Your task to perform on an android device: open chrome and create a bookmark for the current page Image 0: 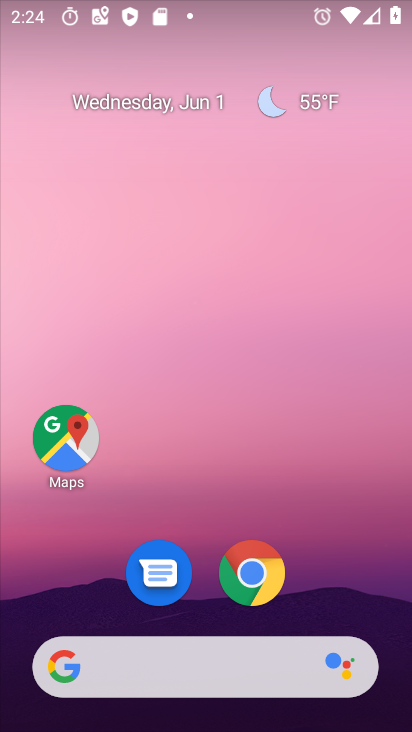
Step 0: drag from (375, 530) to (367, 6)
Your task to perform on an android device: open chrome and create a bookmark for the current page Image 1: 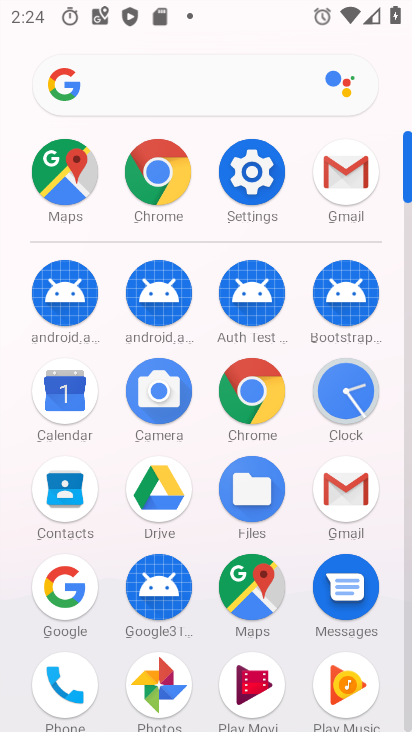
Step 1: click (139, 161)
Your task to perform on an android device: open chrome and create a bookmark for the current page Image 2: 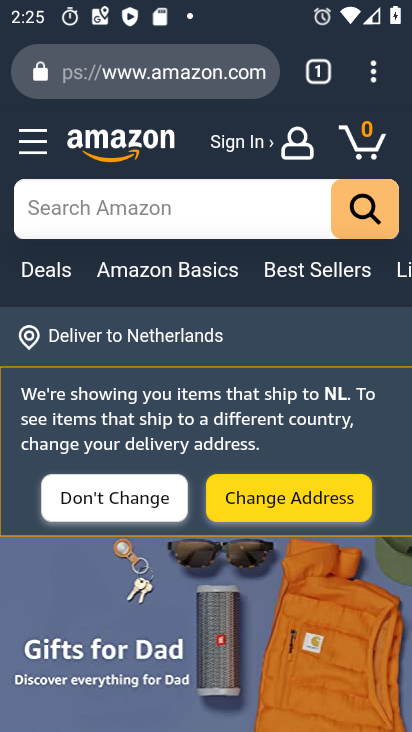
Step 2: task complete